Your task to perform on an android device: install app "Pluto TV - Live TV and Movies" Image 0: 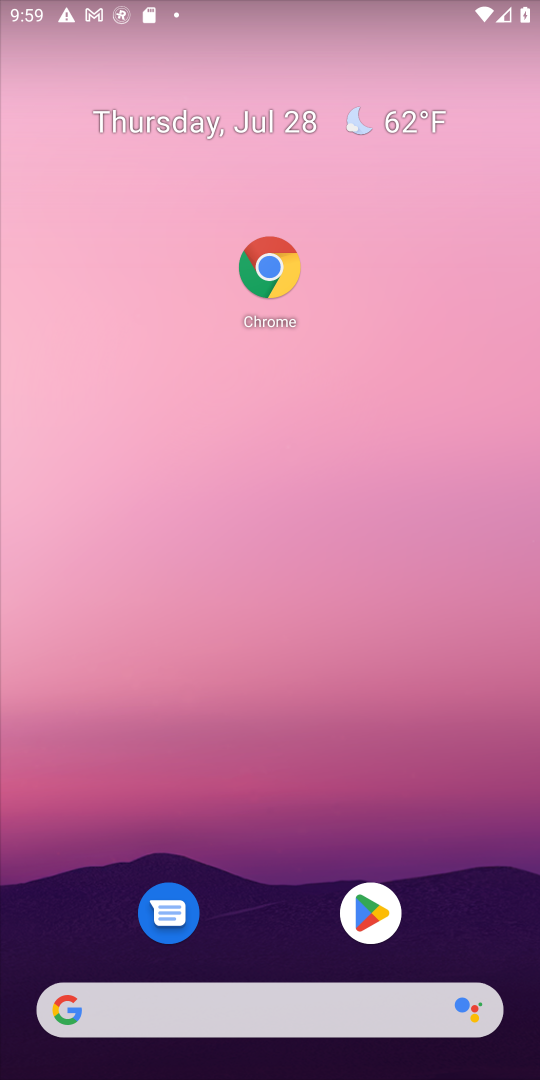
Step 0: click (351, 913)
Your task to perform on an android device: install app "Pluto TV - Live TV and Movies" Image 1: 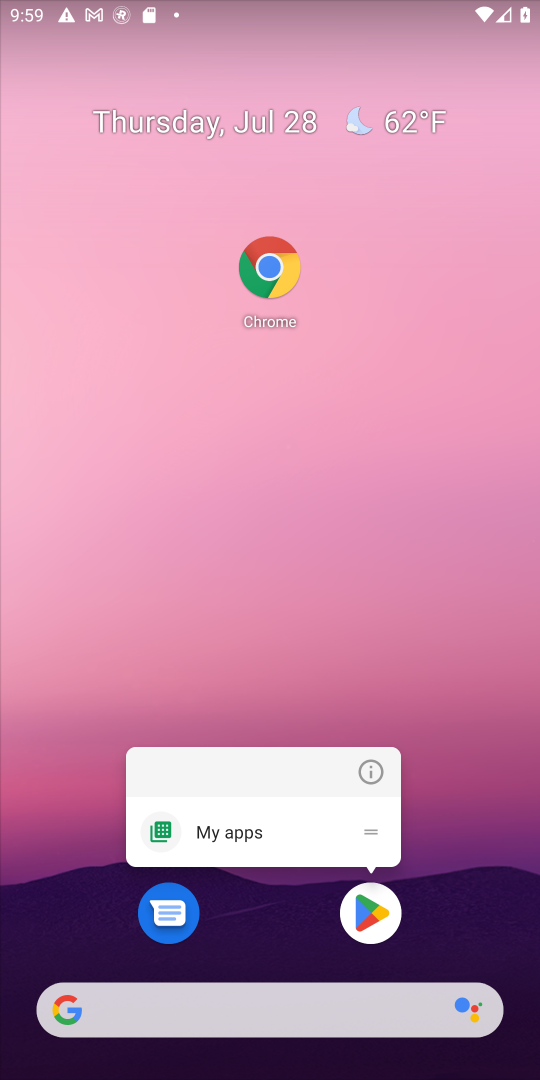
Step 1: click (361, 920)
Your task to perform on an android device: install app "Pluto TV - Live TV and Movies" Image 2: 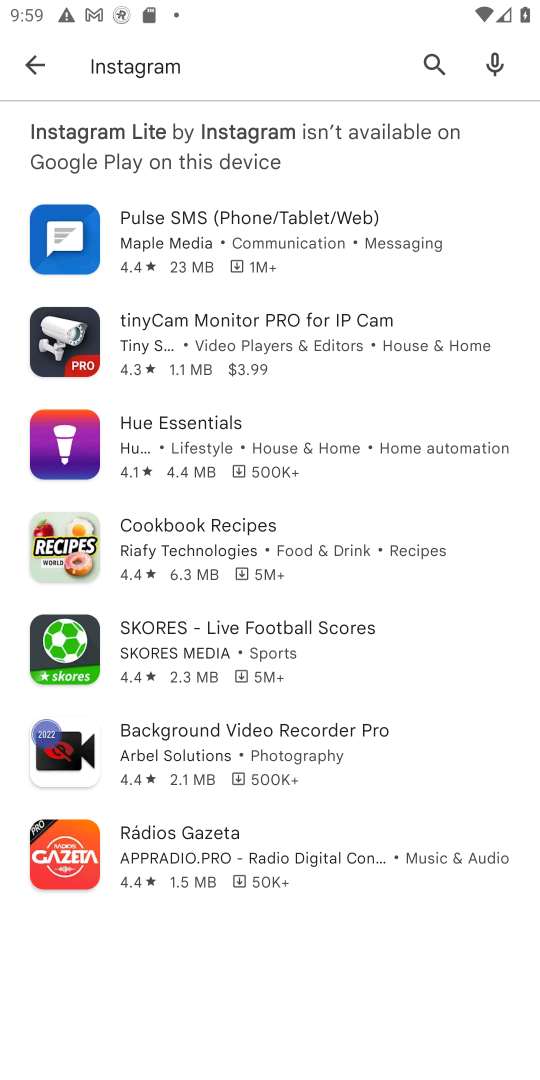
Step 2: click (426, 62)
Your task to perform on an android device: install app "Pluto TV - Live TV and Movies" Image 3: 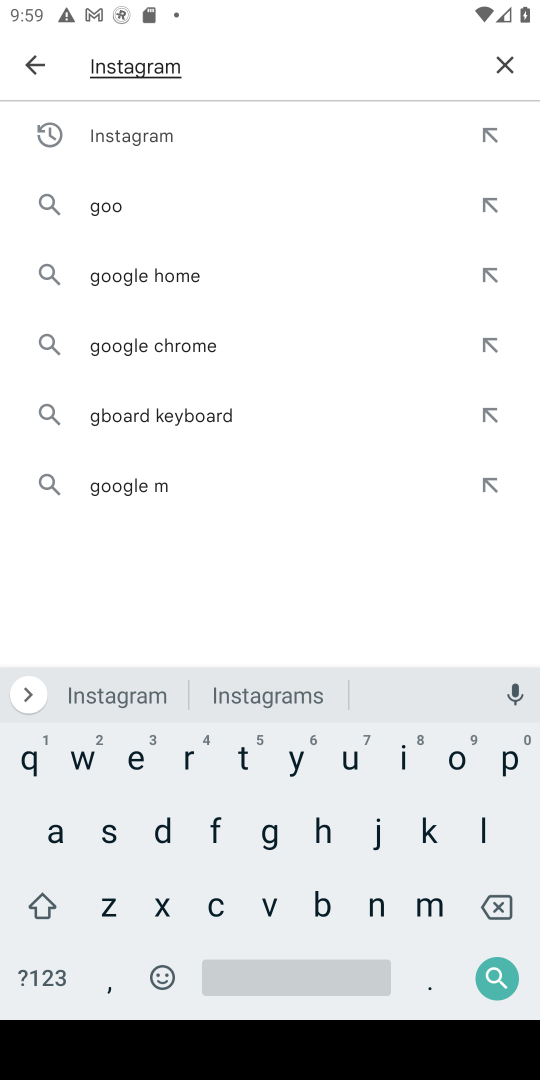
Step 3: click (505, 61)
Your task to perform on an android device: install app "Pluto TV - Live TV and Movies" Image 4: 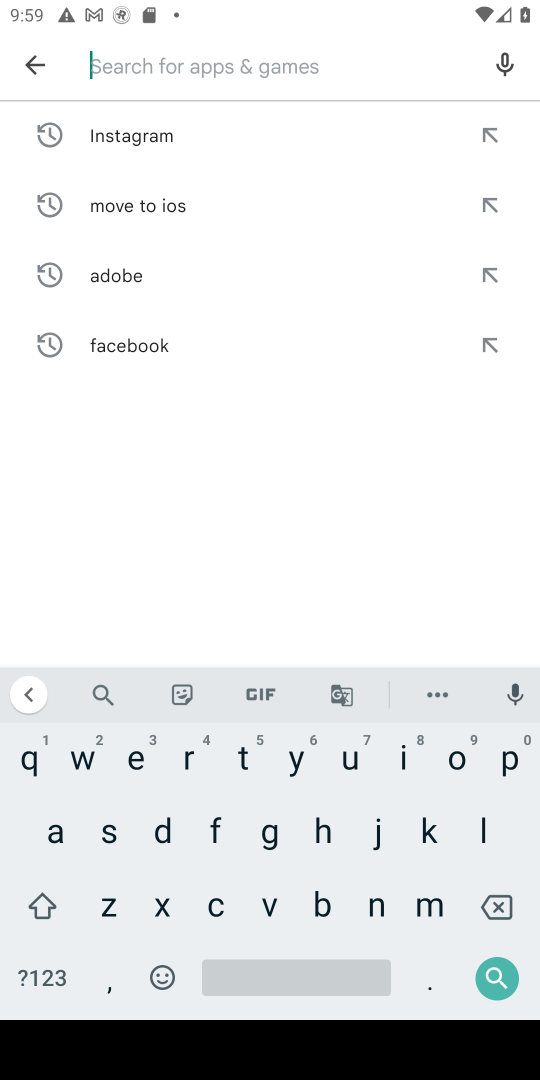
Step 4: type "pluto tv"
Your task to perform on an android device: install app "Pluto TV - Live TV and Movies" Image 5: 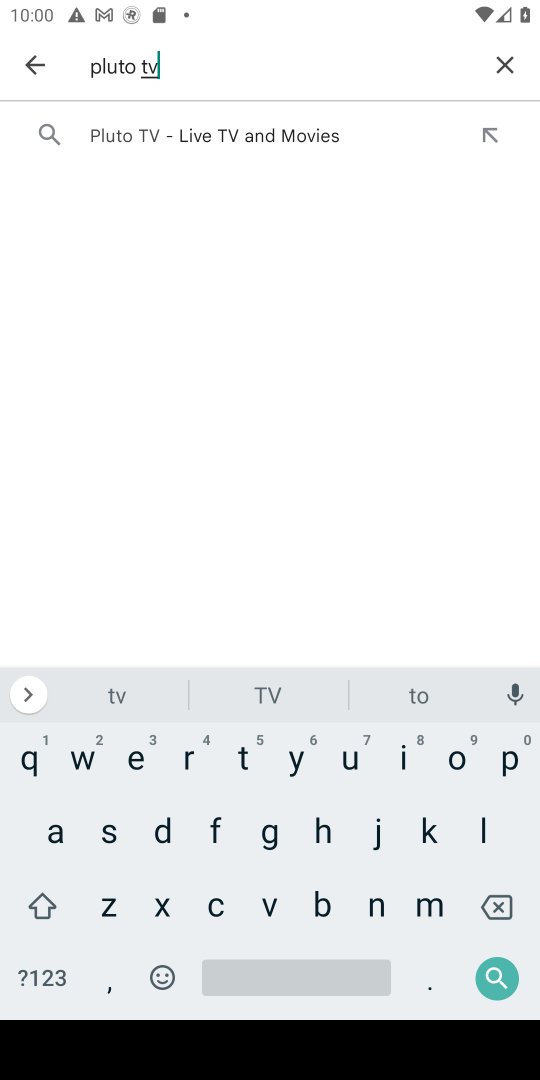
Step 5: click (221, 133)
Your task to perform on an android device: install app "Pluto TV - Live TV and Movies" Image 6: 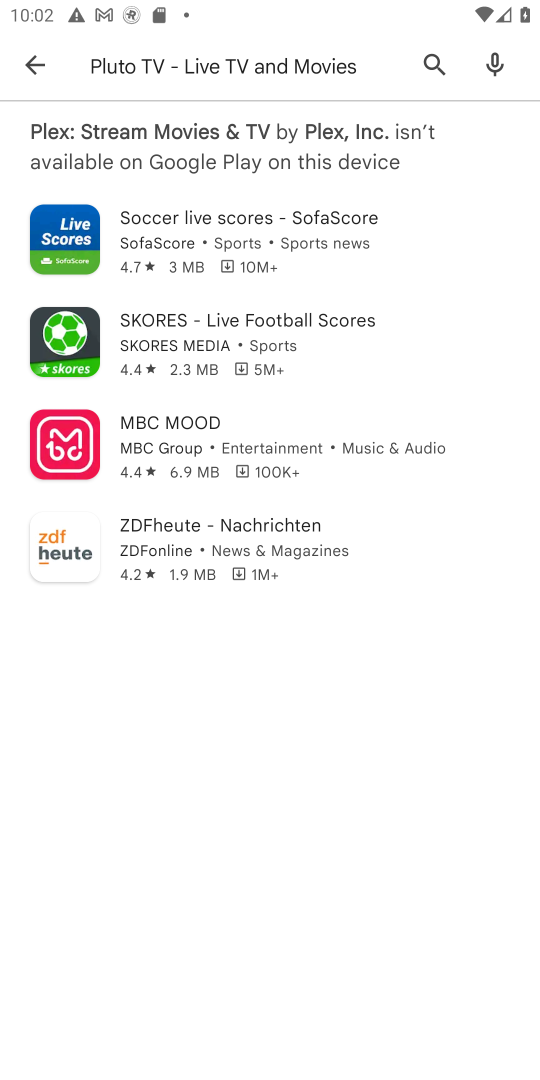
Step 6: task complete